Your task to perform on an android device: turn off priority inbox in the gmail app Image 0: 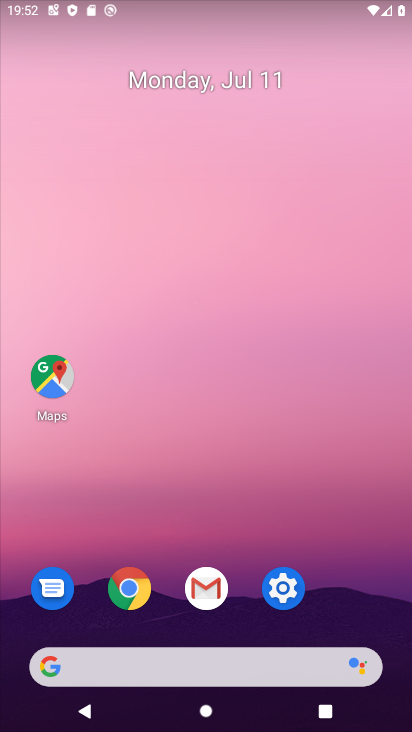
Step 0: click (215, 593)
Your task to perform on an android device: turn off priority inbox in the gmail app Image 1: 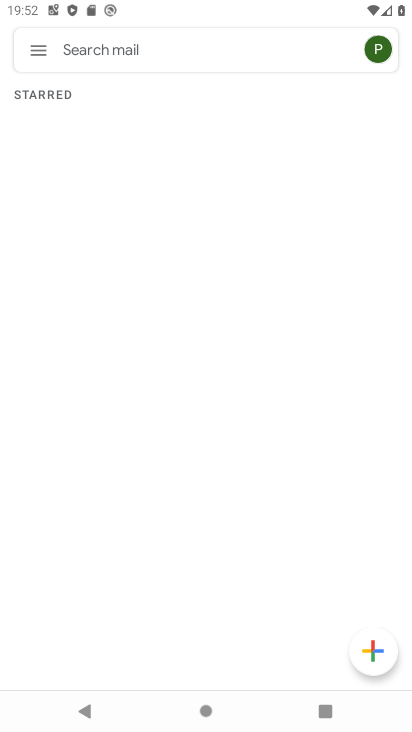
Step 1: click (38, 48)
Your task to perform on an android device: turn off priority inbox in the gmail app Image 2: 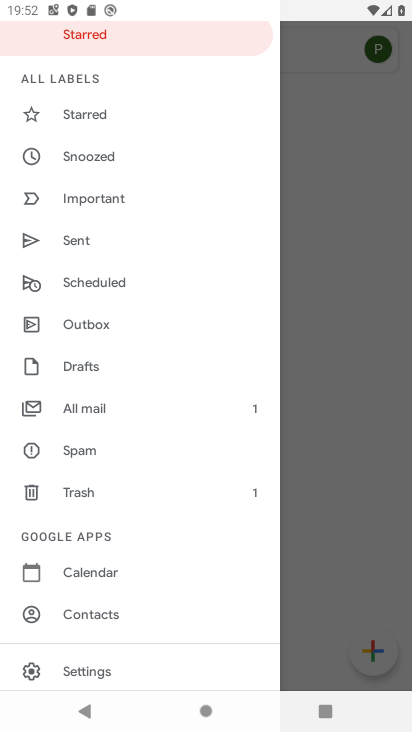
Step 2: click (89, 668)
Your task to perform on an android device: turn off priority inbox in the gmail app Image 3: 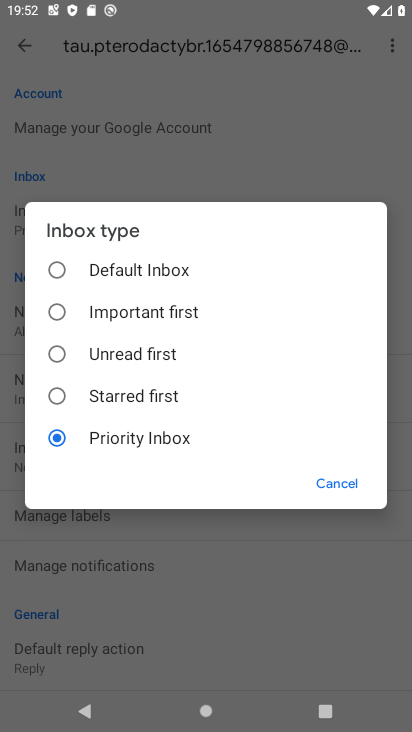
Step 3: click (143, 432)
Your task to perform on an android device: turn off priority inbox in the gmail app Image 4: 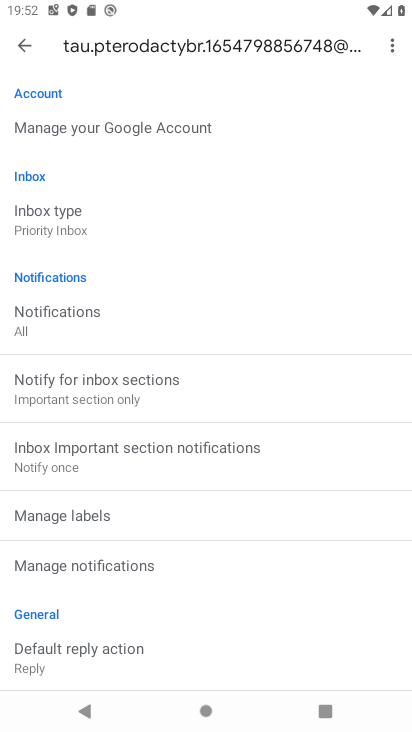
Step 4: click (81, 225)
Your task to perform on an android device: turn off priority inbox in the gmail app Image 5: 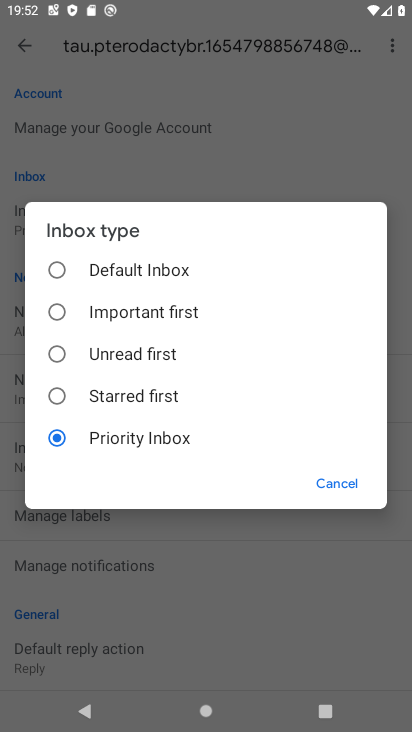
Step 5: click (88, 271)
Your task to perform on an android device: turn off priority inbox in the gmail app Image 6: 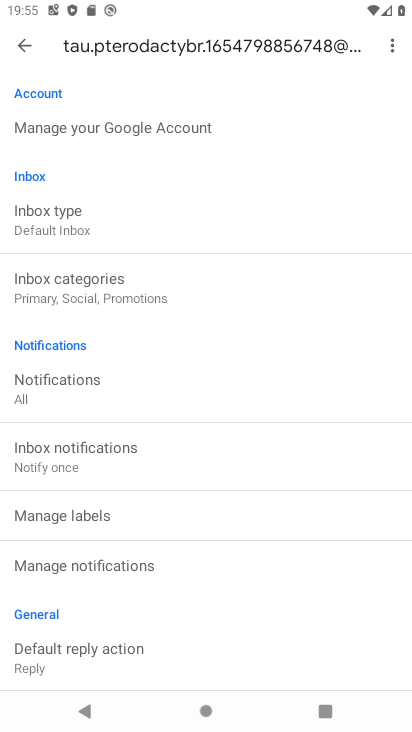
Step 6: task complete